Your task to perform on an android device: What's the weather? Image 0: 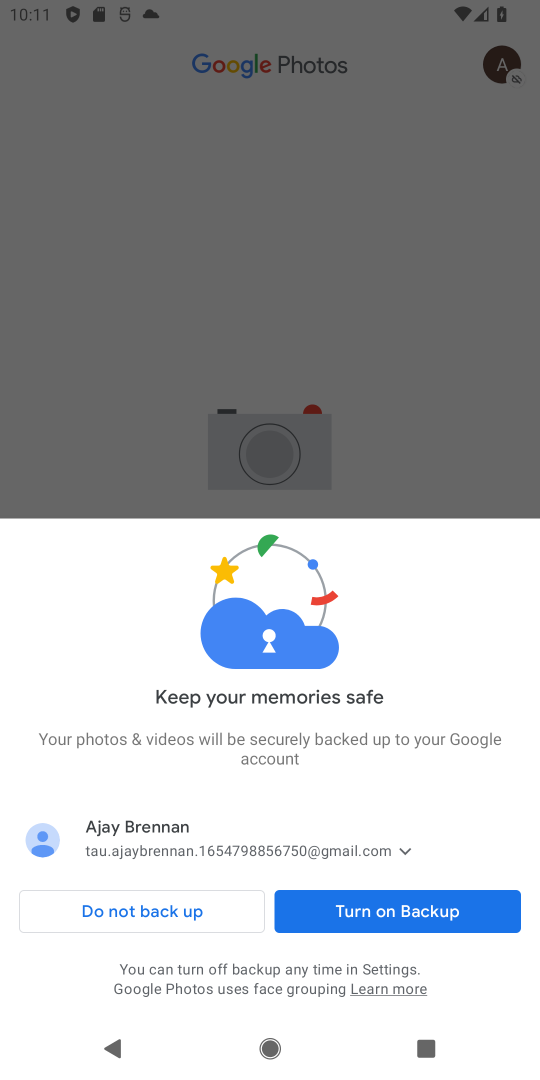
Step 0: press home button
Your task to perform on an android device: What's the weather? Image 1: 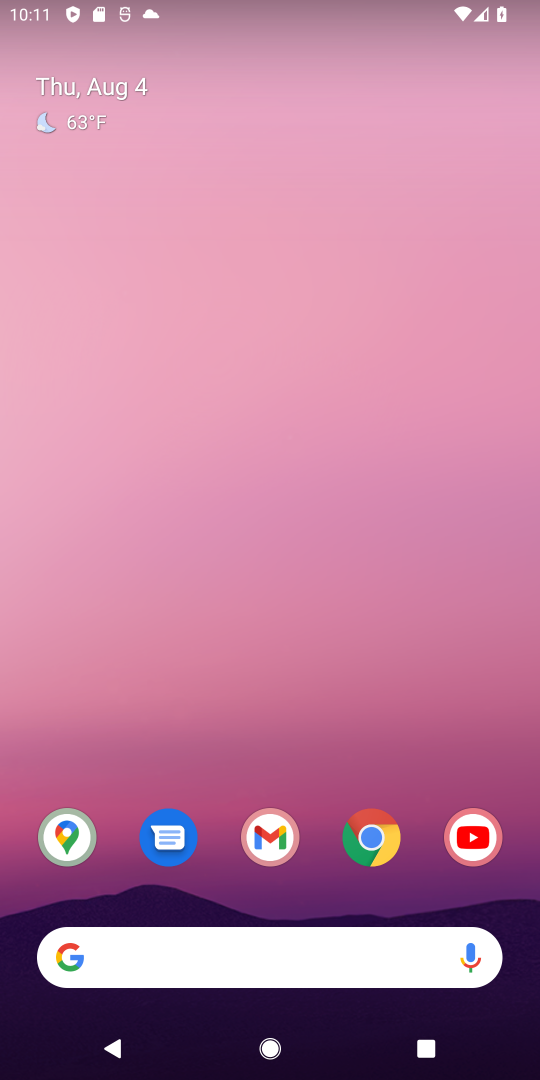
Step 1: drag from (263, 828) to (282, 156)
Your task to perform on an android device: What's the weather? Image 2: 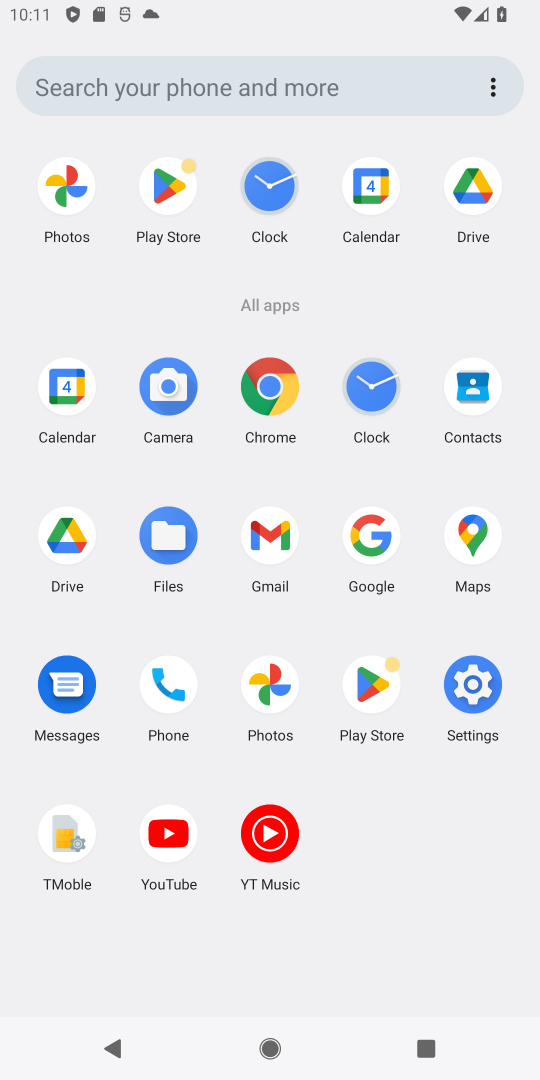
Step 2: click (263, 386)
Your task to perform on an android device: What's the weather? Image 3: 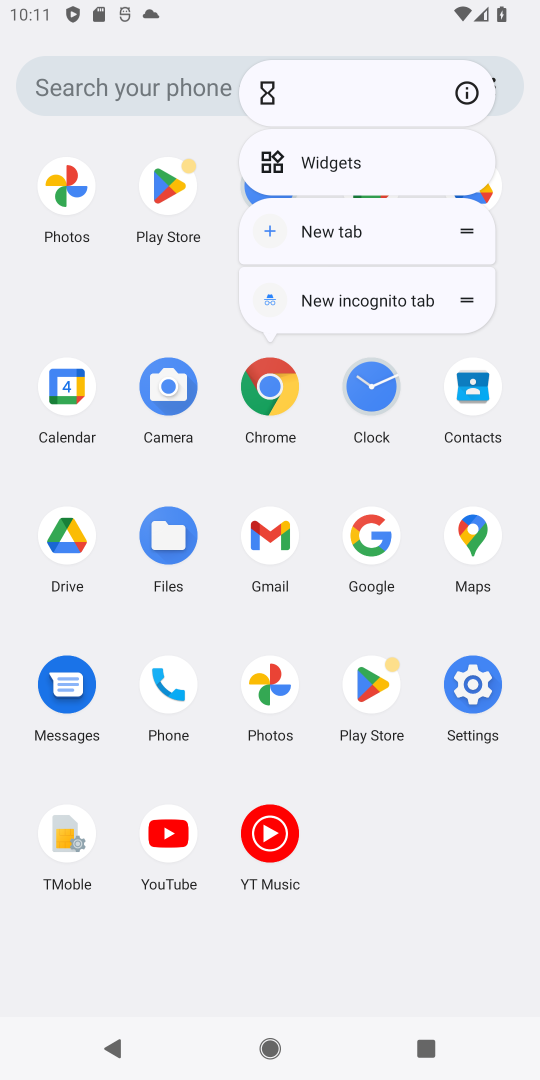
Step 3: click (277, 408)
Your task to perform on an android device: What's the weather? Image 4: 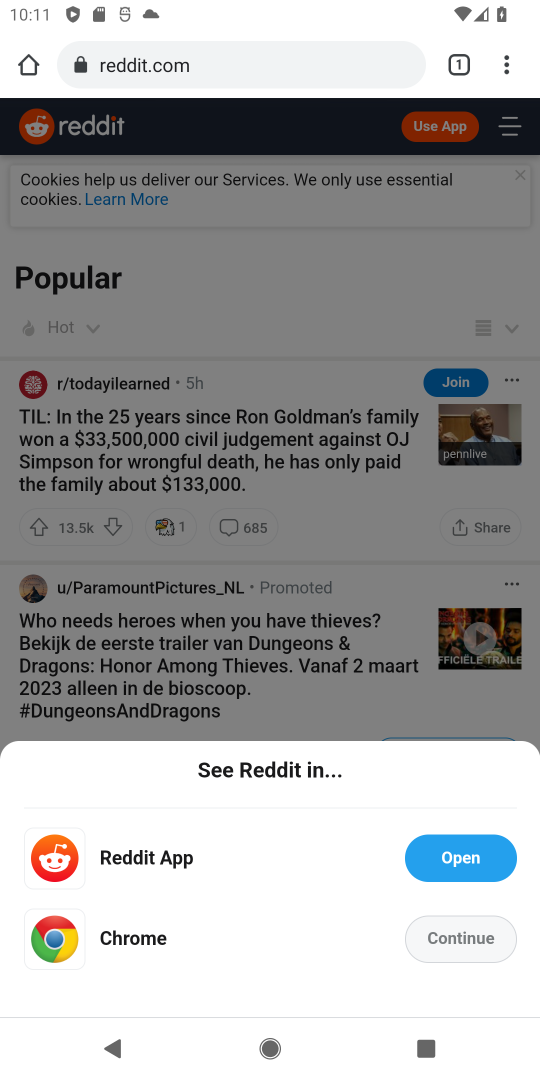
Step 4: click (505, 66)
Your task to perform on an android device: What's the weather? Image 5: 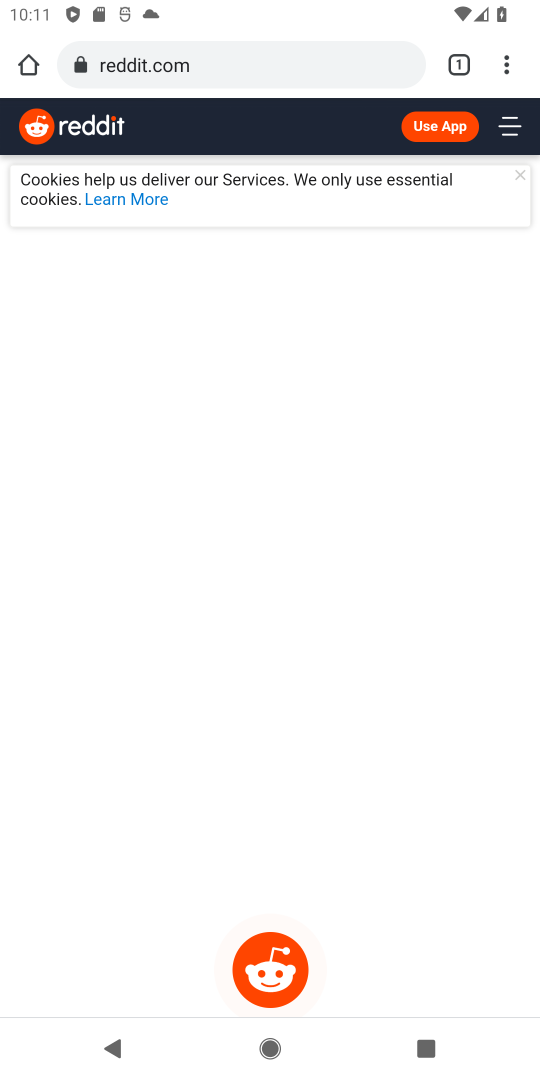
Step 5: click (506, 73)
Your task to perform on an android device: What's the weather? Image 6: 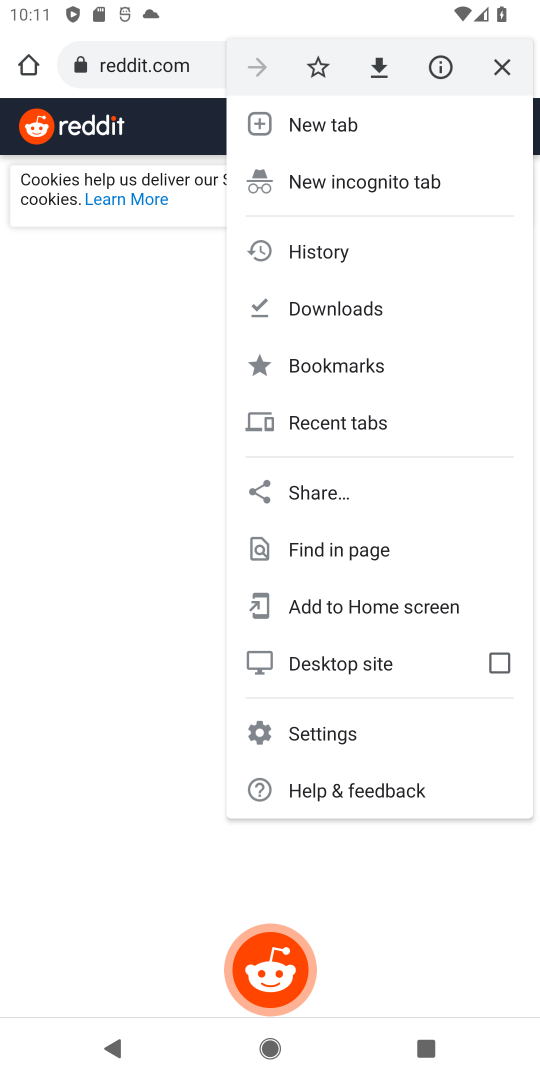
Step 6: click (344, 138)
Your task to perform on an android device: What's the weather? Image 7: 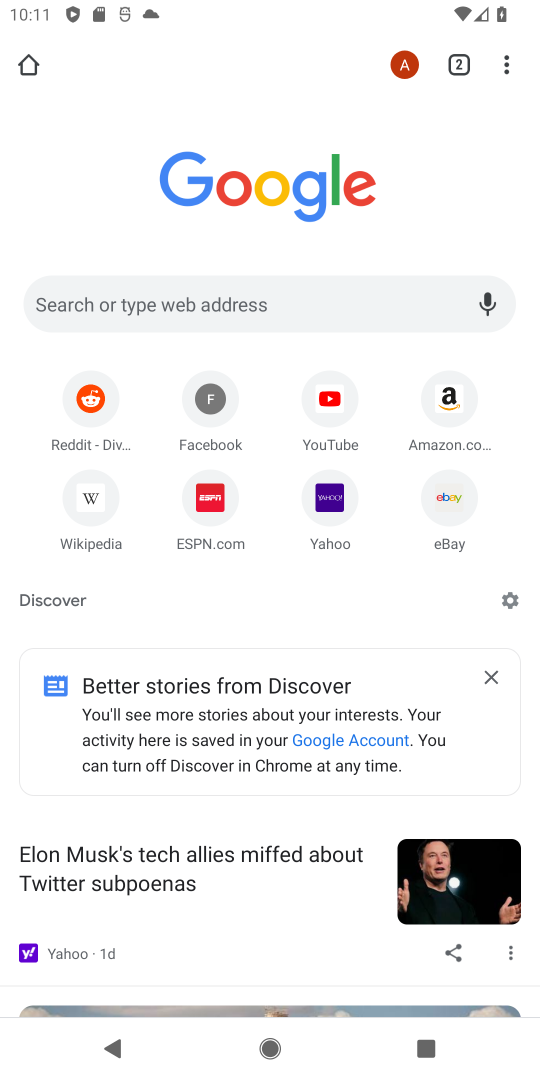
Step 7: click (364, 304)
Your task to perform on an android device: What's the weather? Image 8: 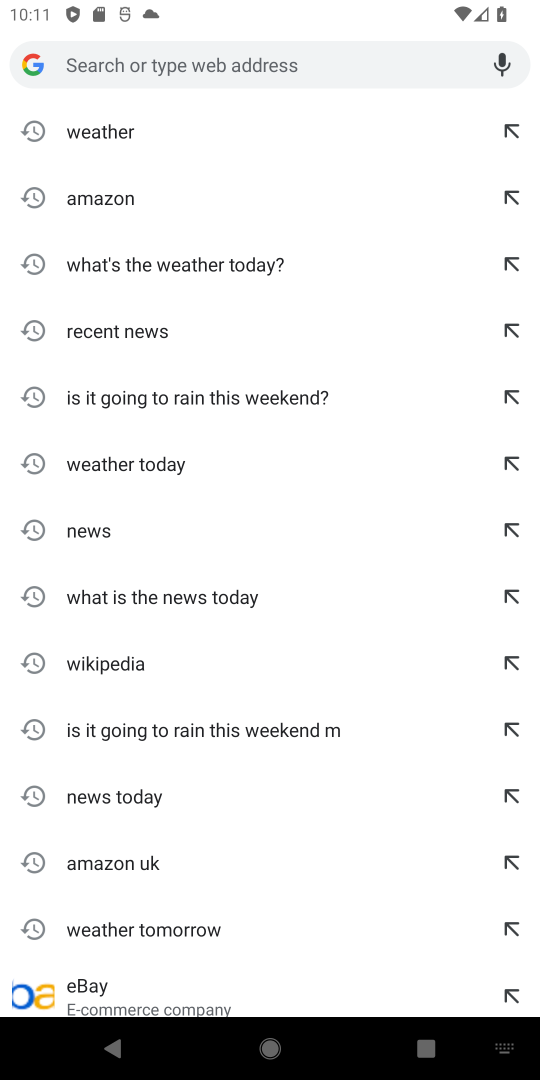
Step 8: type "What's the weather? "
Your task to perform on an android device: What's the weather? Image 9: 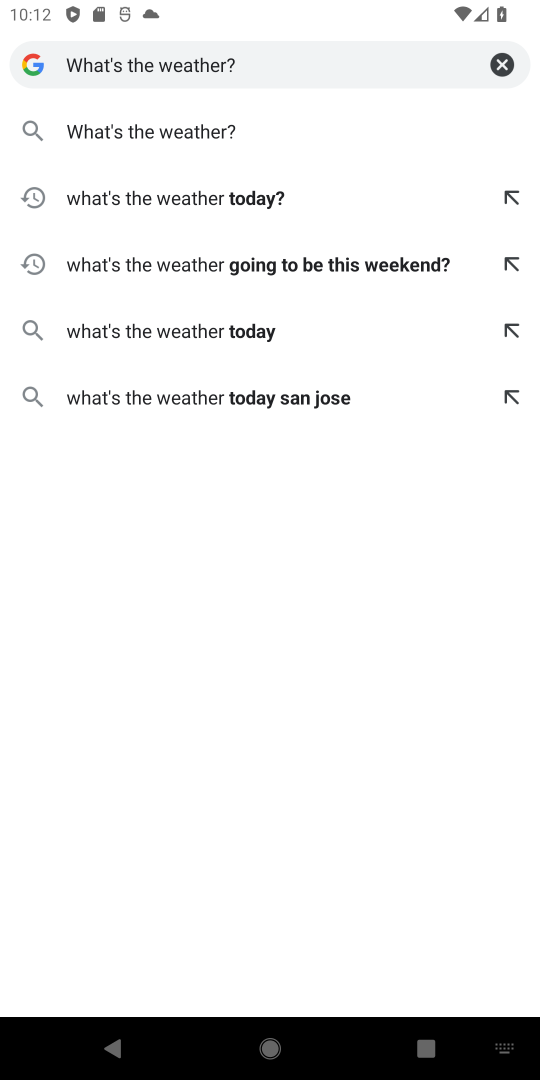
Step 9: click (200, 115)
Your task to perform on an android device: What's the weather? Image 10: 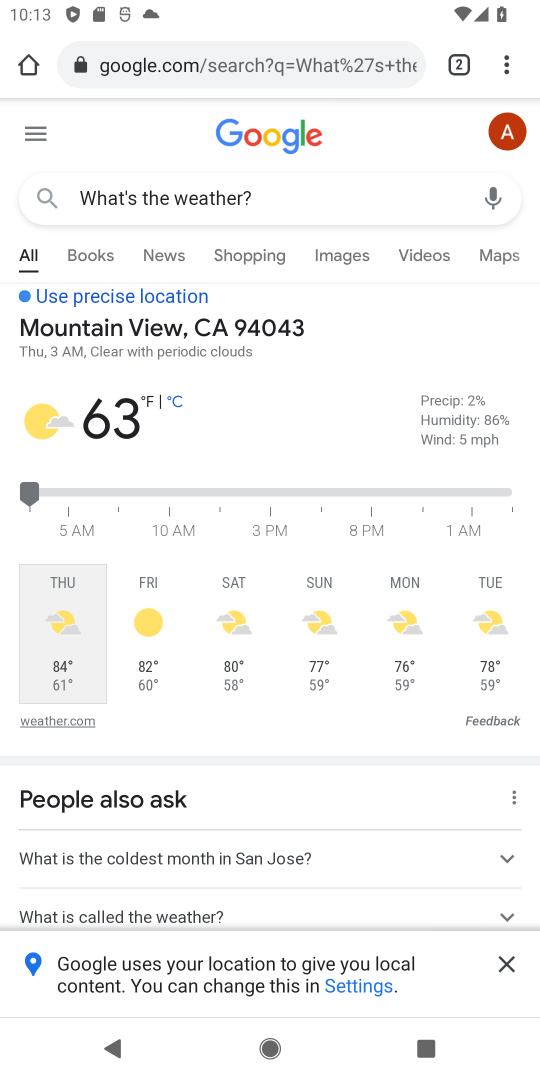
Step 10: task complete